Your task to perform on an android device: Open maps Image 0: 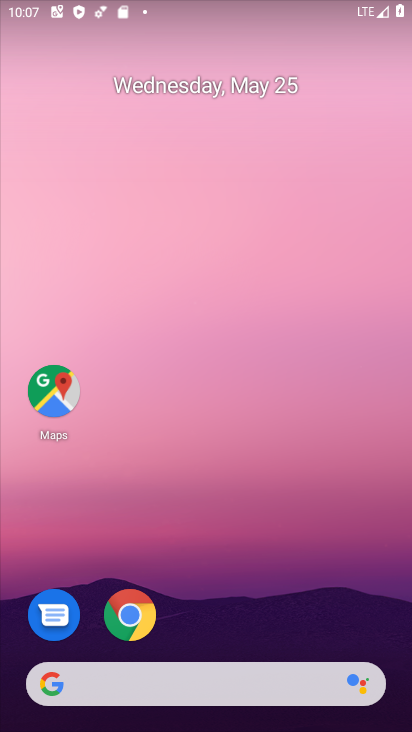
Step 0: click (56, 383)
Your task to perform on an android device: Open maps Image 1: 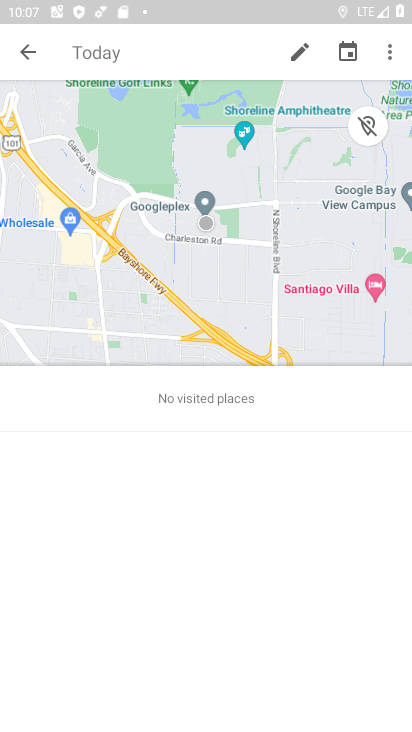
Step 1: click (22, 45)
Your task to perform on an android device: Open maps Image 2: 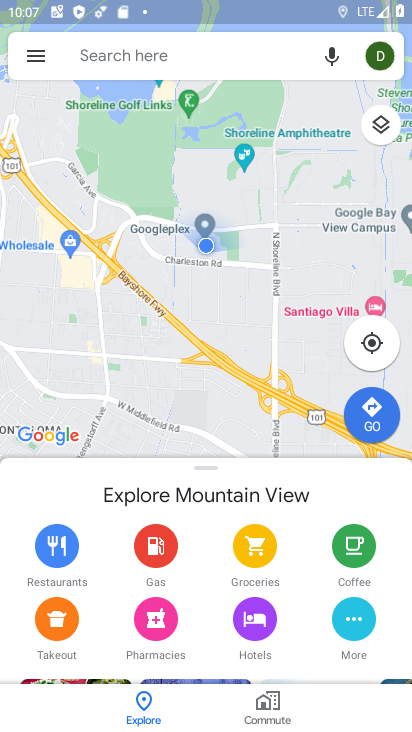
Step 2: task complete